Your task to perform on an android device: When is my next meeting? Image 0: 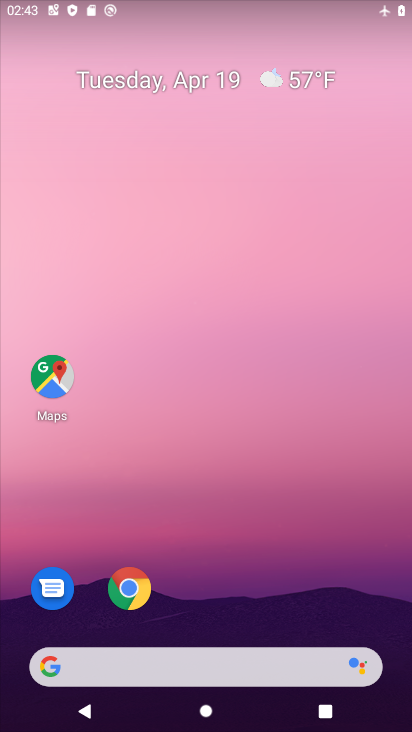
Step 0: click (265, 162)
Your task to perform on an android device: When is my next meeting? Image 1: 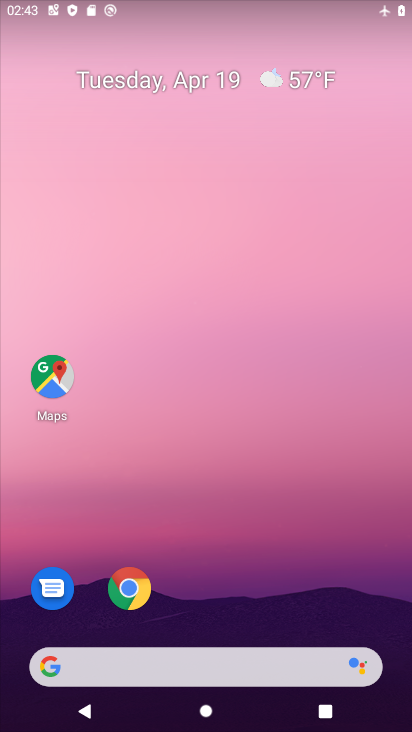
Step 1: drag from (303, 540) to (369, 48)
Your task to perform on an android device: When is my next meeting? Image 2: 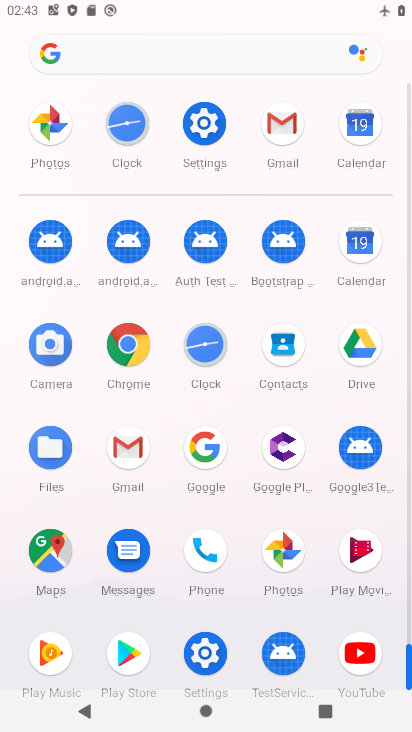
Step 2: click (359, 244)
Your task to perform on an android device: When is my next meeting? Image 3: 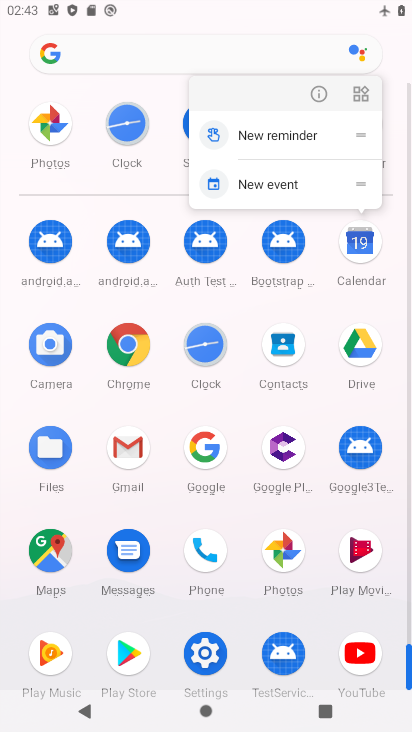
Step 3: click (359, 244)
Your task to perform on an android device: When is my next meeting? Image 4: 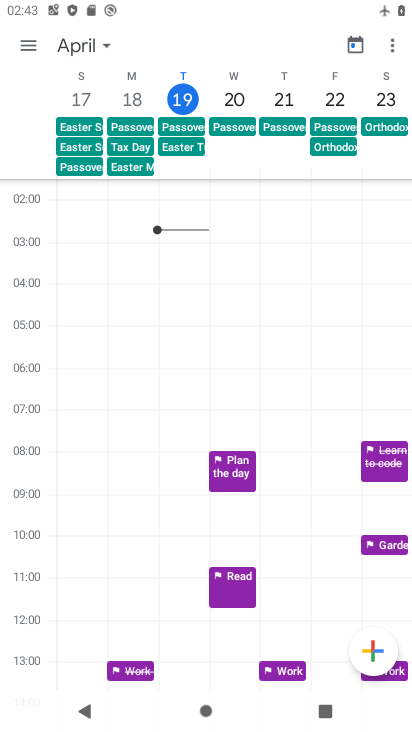
Step 4: drag from (189, 632) to (194, 238)
Your task to perform on an android device: When is my next meeting? Image 5: 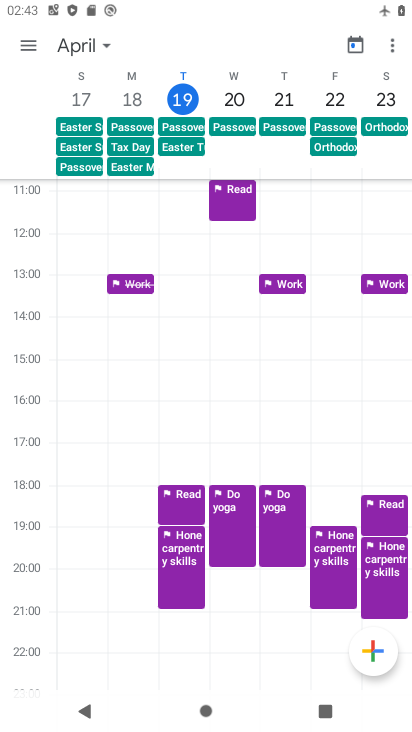
Step 5: click (175, 511)
Your task to perform on an android device: When is my next meeting? Image 6: 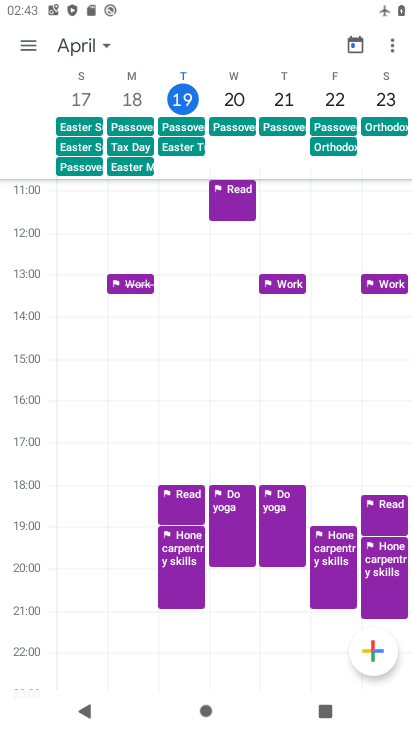
Step 6: click (186, 489)
Your task to perform on an android device: When is my next meeting? Image 7: 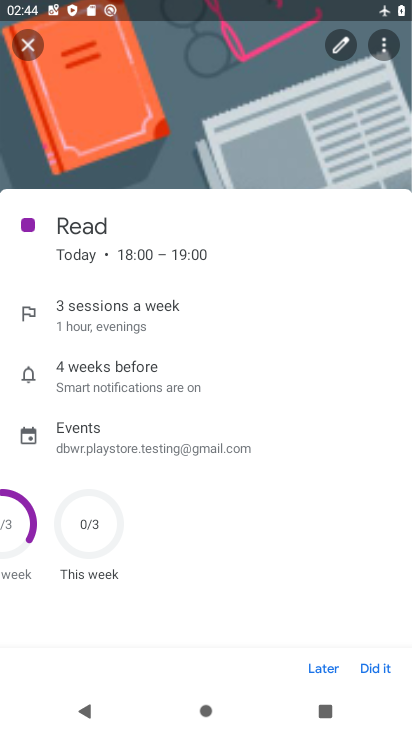
Step 7: task complete